Your task to perform on an android device: open chrome and create a bookmark for the current page Image 0: 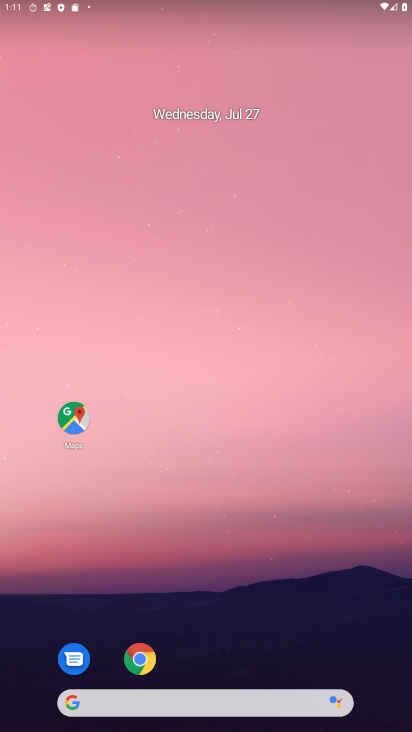
Step 0: press home button
Your task to perform on an android device: open chrome and create a bookmark for the current page Image 1: 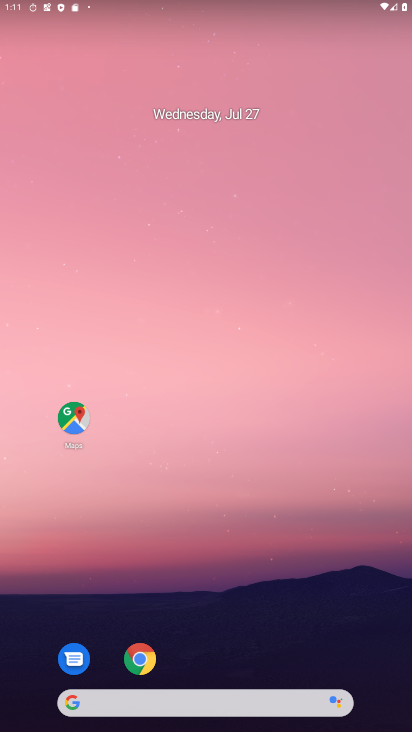
Step 1: drag from (202, 666) to (187, 99)
Your task to perform on an android device: open chrome and create a bookmark for the current page Image 2: 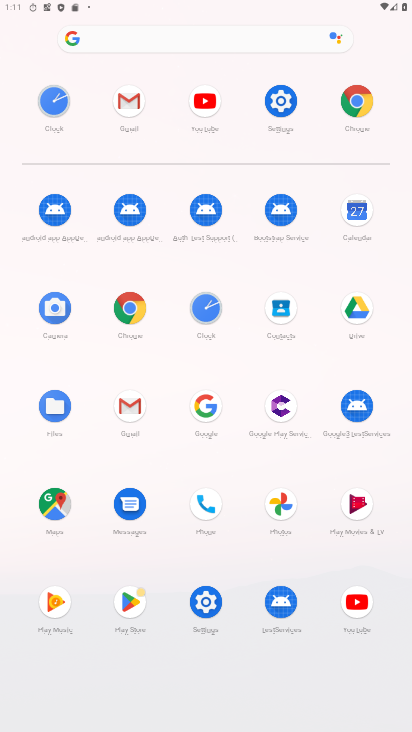
Step 2: click (130, 305)
Your task to perform on an android device: open chrome and create a bookmark for the current page Image 3: 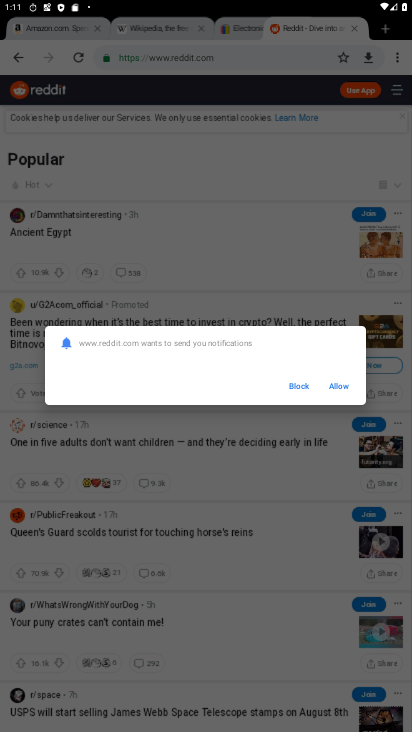
Step 3: click (338, 388)
Your task to perform on an android device: open chrome and create a bookmark for the current page Image 4: 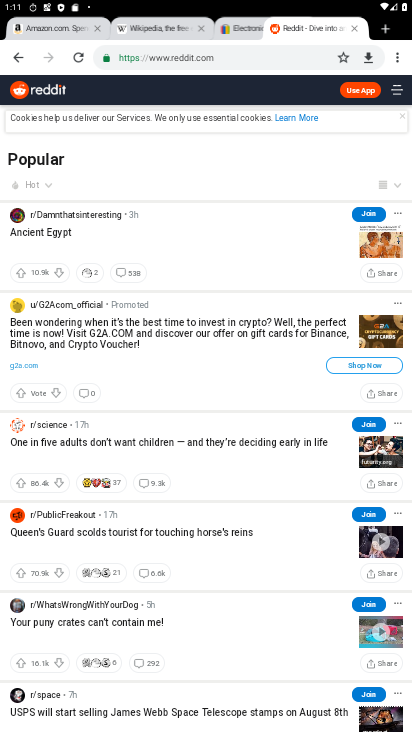
Step 4: click (341, 58)
Your task to perform on an android device: open chrome and create a bookmark for the current page Image 5: 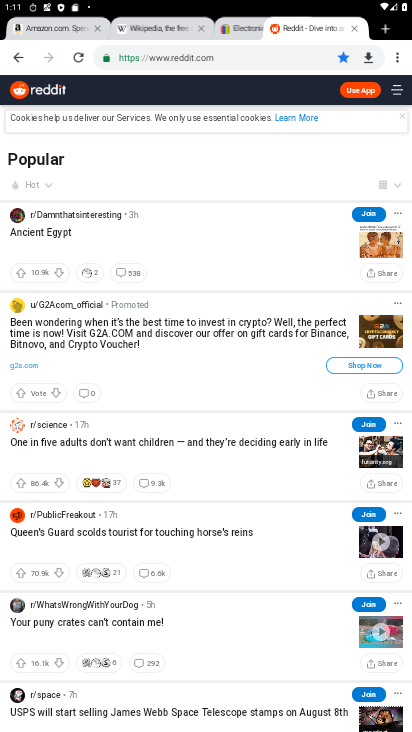
Step 5: task complete